Your task to perform on an android device: Open Google Chrome and click the shortcut for Amazon.com Image 0: 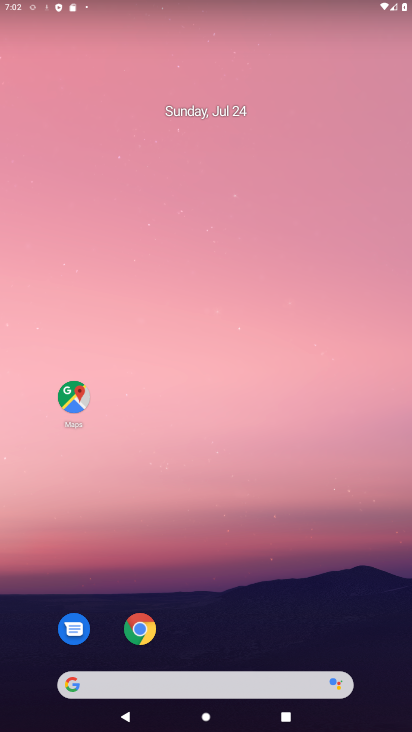
Step 0: drag from (259, 372) to (189, 7)
Your task to perform on an android device: Open Google Chrome and click the shortcut for Amazon.com Image 1: 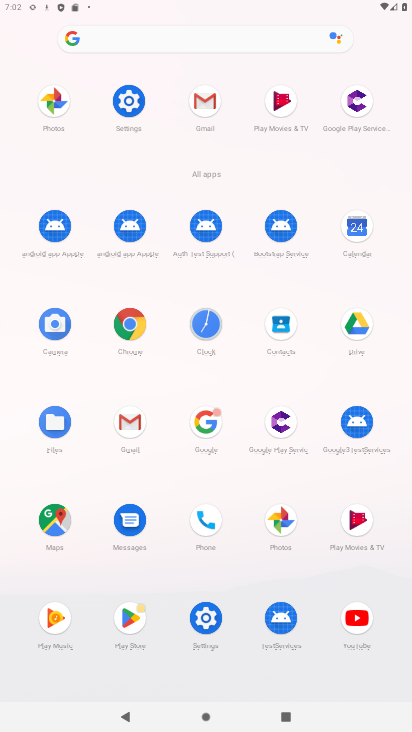
Step 1: click (127, 335)
Your task to perform on an android device: Open Google Chrome and click the shortcut for Amazon.com Image 2: 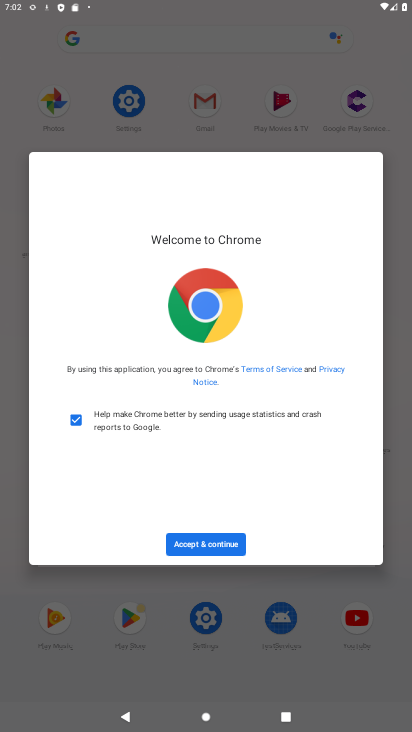
Step 2: click (203, 548)
Your task to perform on an android device: Open Google Chrome and click the shortcut for Amazon.com Image 3: 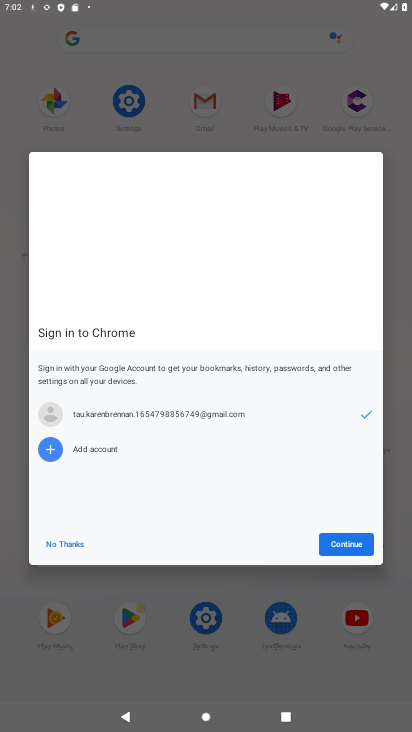
Step 3: click (362, 550)
Your task to perform on an android device: Open Google Chrome and click the shortcut for Amazon.com Image 4: 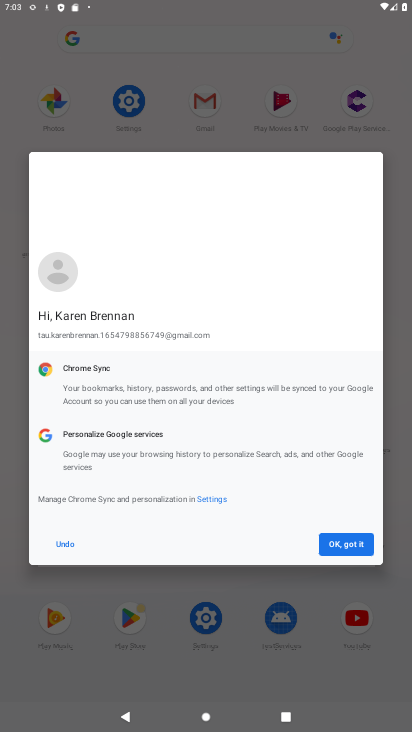
Step 4: click (361, 550)
Your task to perform on an android device: Open Google Chrome and click the shortcut for Amazon.com Image 5: 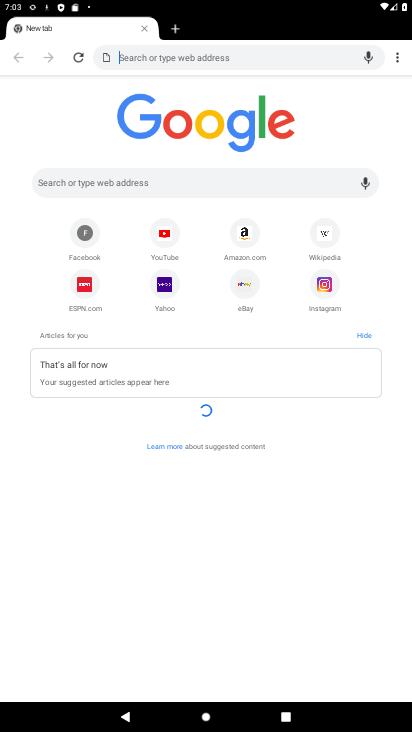
Step 5: click (241, 231)
Your task to perform on an android device: Open Google Chrome and click the shortcut for Amazon.com Image 6: 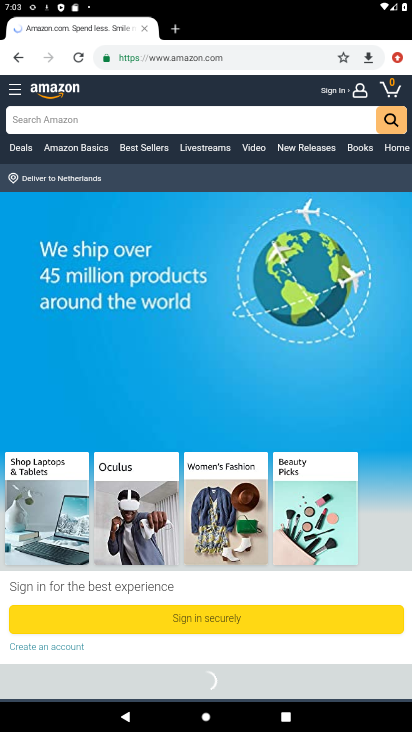
Step 6: task complete